Your task to perform on an android device: Open Wikipedia Image 0: 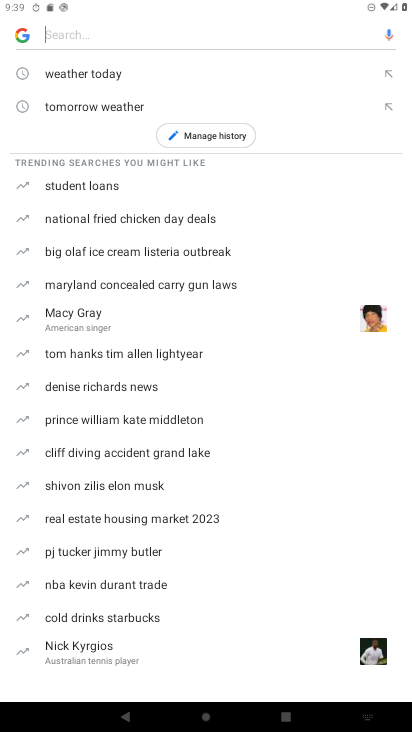
Step 0: press home button
Your task to perform on an android device: Open Wikipedia Image 1: 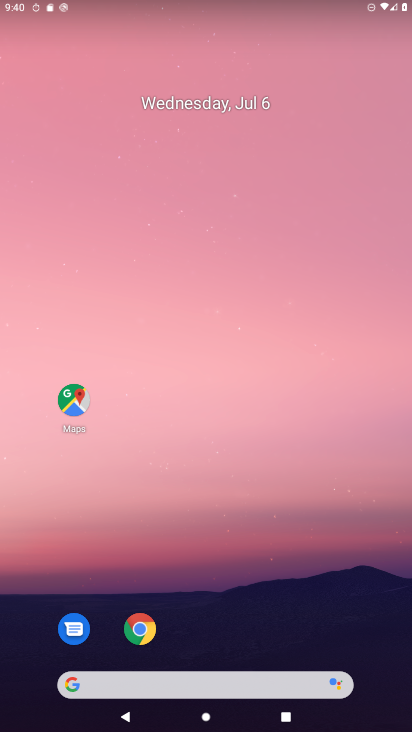
Step 1: click (138, 627)
Your task to perform on an android device: Open Wikipedia Image 2: 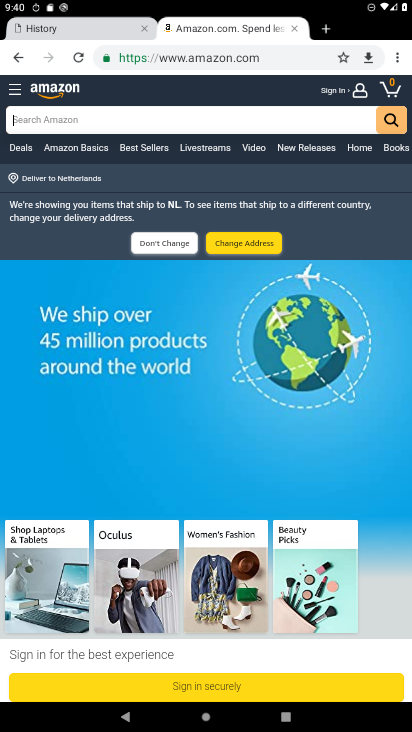
Step 2: click (398, 63)
Your task to perform on an android device: Open Wikipedia Image 3: 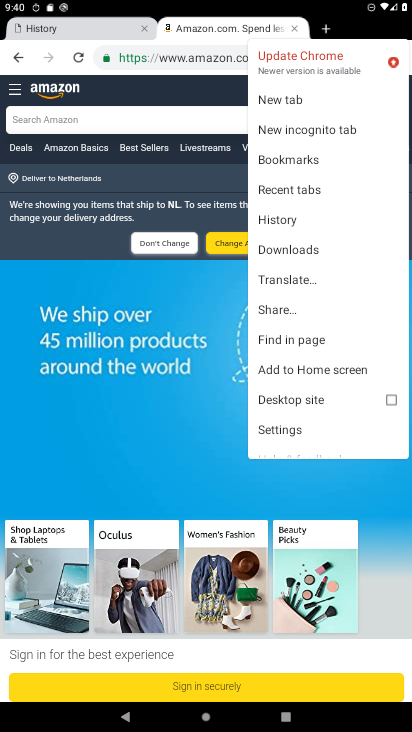
Step 3: click (289, 99)
Your task to perform on an android device: Open Wikipedia Image 4: 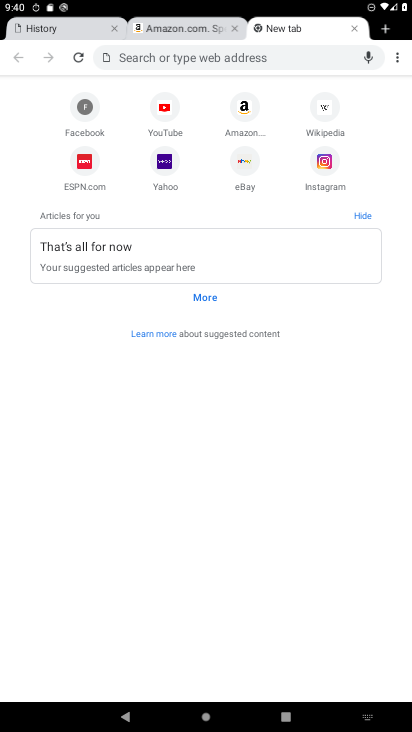
Step 4: click (322, 111)
Your task to perform on an android device: Open Wikipedia Image 5: 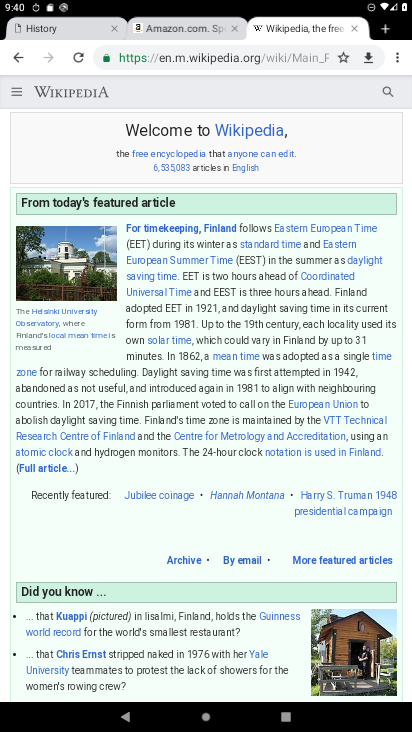
Step 5: task complete